Your task to perform on an android device: open device folders in google photos Image 0: 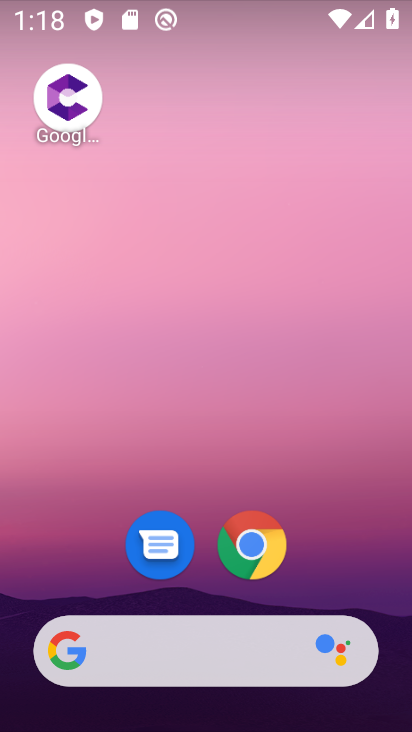
Step 0: drag from (401, 633) to (308, 36)
Your task to perform on an android device: open device folders in google photos Image 1: 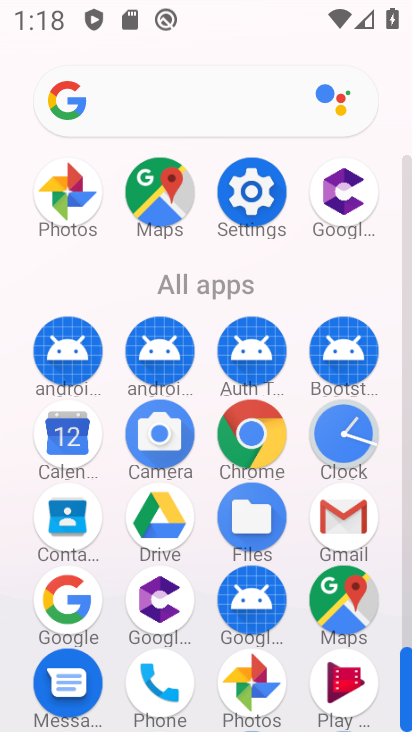
Step 1: click (406, 636)
Your task to perform on an android device: open device folders in google photos Image 2: 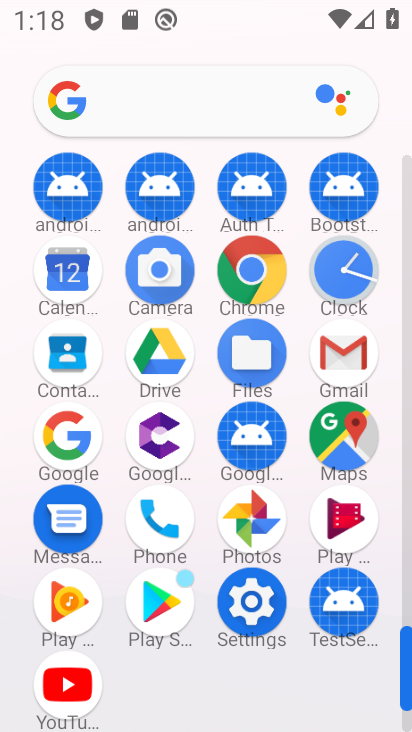
Step 2: click (251, 517)
Your task to perform on an android device: open device folders in google photos Image 3: 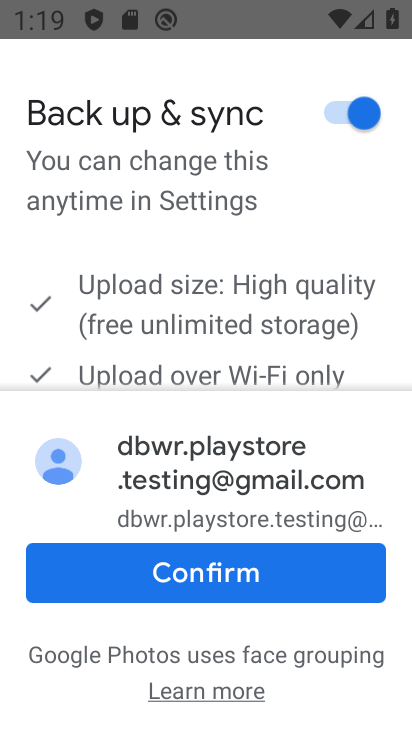
Step 3: click (218, 575)
Your task to perform on an android device: open device folders in google photos Image 4: 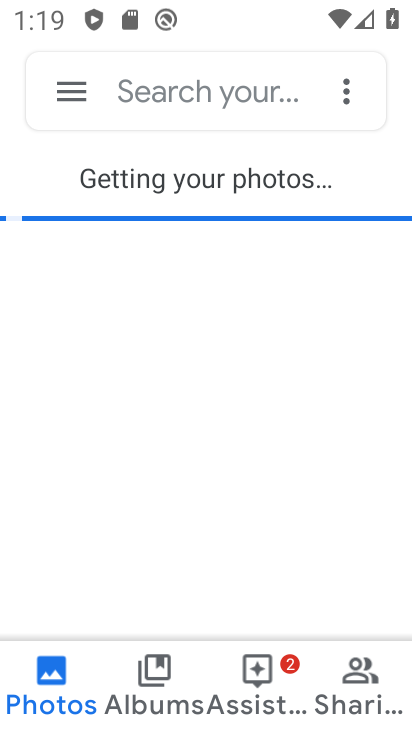
Step 4: click (72, 85)
Your task to perform on an android device: open device folders in google photos Image 5: 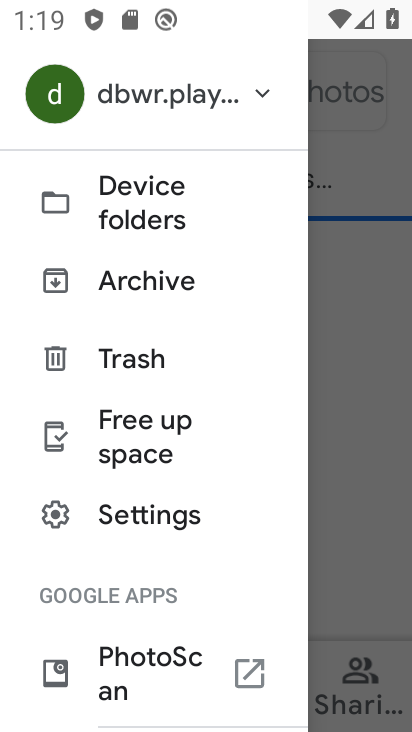
Step 5: click (161, 195)
Your task to perform on an android device: open device folders in google photos Image 6: 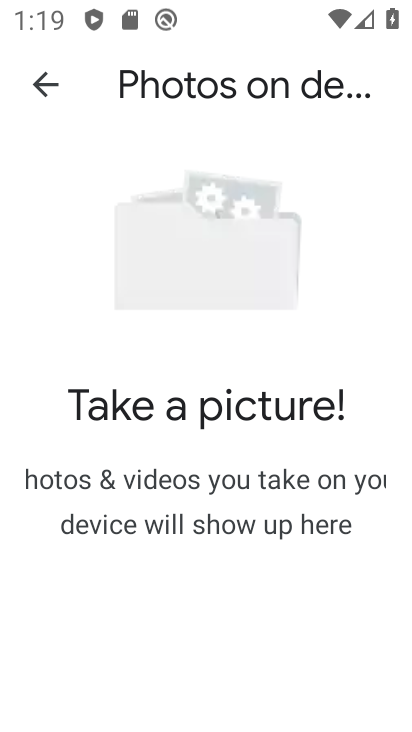
Step 6: task complete